Your task to perform on an android device: turn on data saver in the chrome app Image 0: 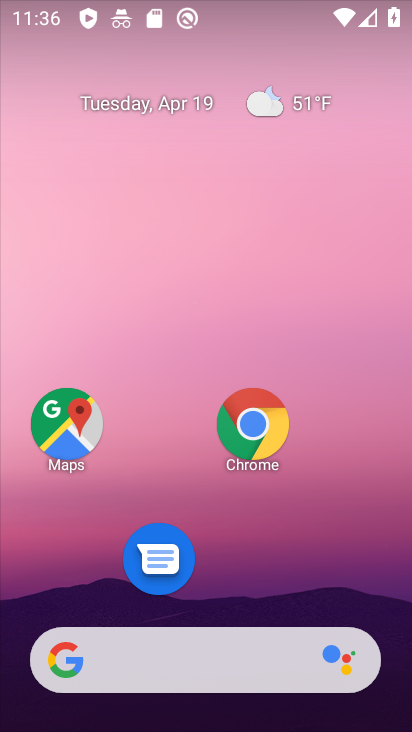
Step 0: drag from (307, 682) to (238, 8)
Your task to perform on an android device: turn on data saver in the chrome app Image 1: 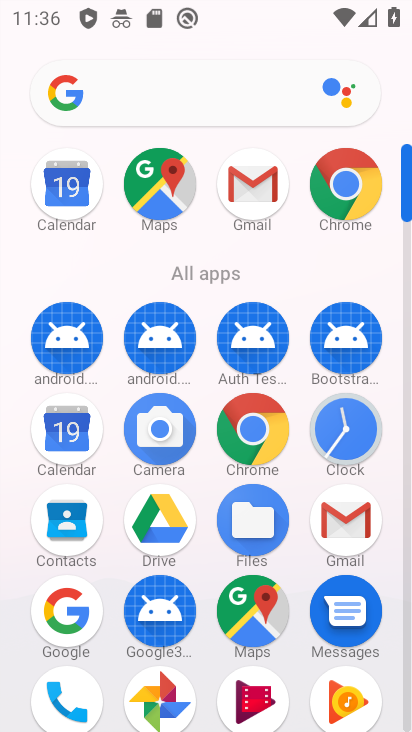
Step 1: click (258, 452)
Your task to perform on an android device: turn on data saver in the chrome app Image 2: 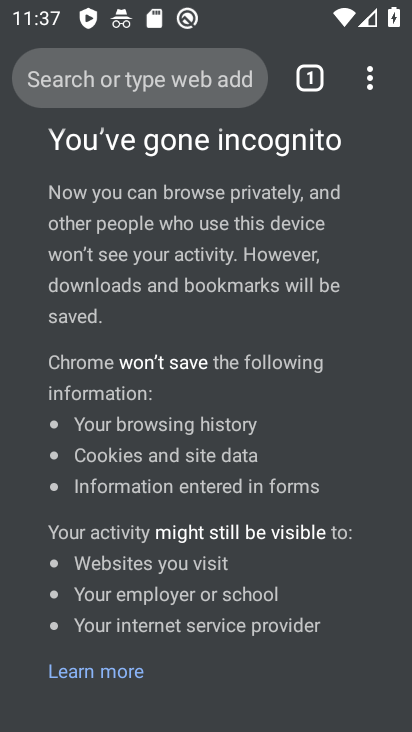
Step 2: click (368, 62)
Your task to perform on an android device: turn on data saver in the chrome app Image 3: 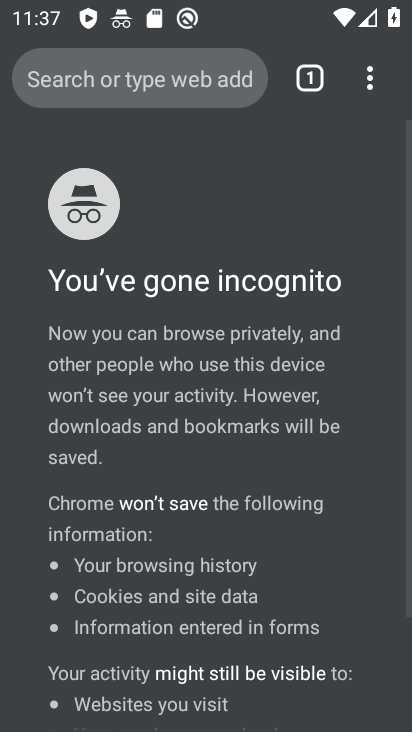
Step 3: drag from (370, 77) to (70, 582)
Your task to perform on an android device: turn on data saver in the chrome app Image 4: 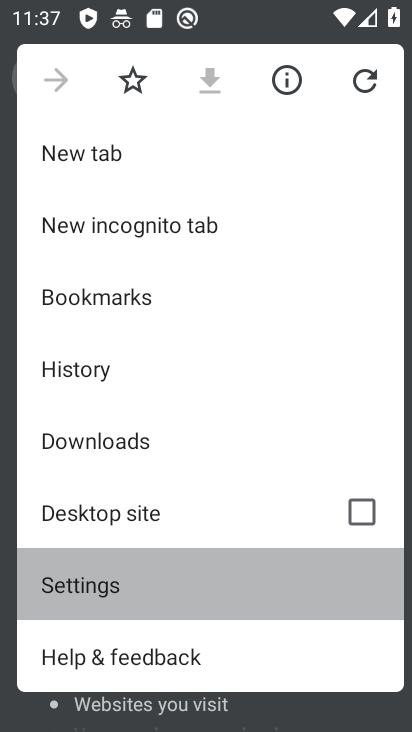
Step 4: click (70, 582)
Your task to perform on an android device: turn on data saver in the chrome app Image 5: 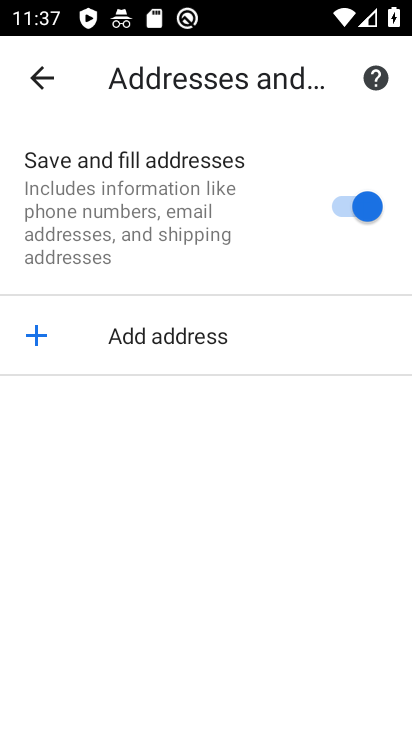
Step 5: drag from (72, 593) to (38, 379)
Your task to perform on an android device: turn on data saver in the chrome app Image 6: 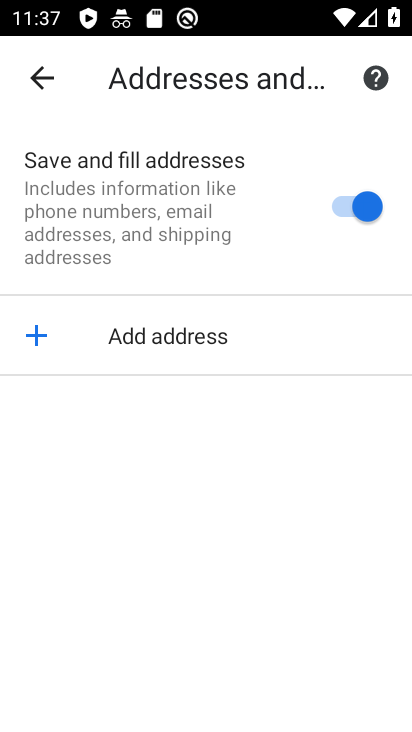
Step 6: click (31, 76)
Your task to perform on an android device: turn on data saver in the chrome app Image 7: 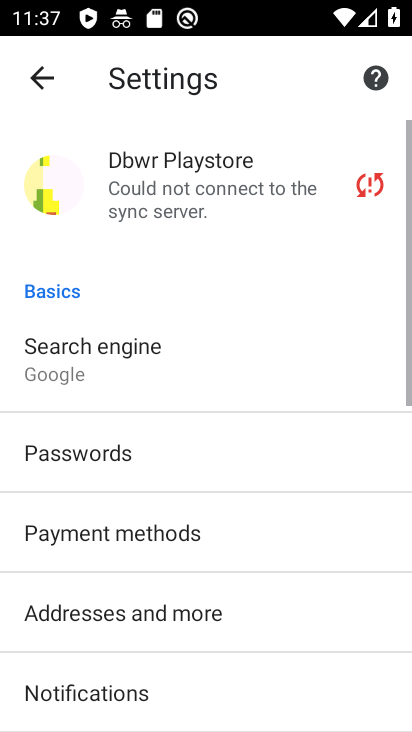
Step 7: drag from (165, 602) to (161, 218)
Your task to perform on an android device: turn on data saver in the chrome app Image 8: 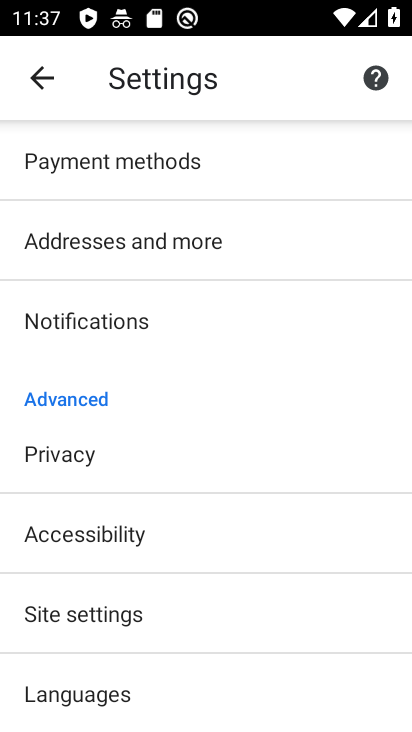
Step 8: drag from (92, 597) to (69, 355)
Your task to perform on an android device: turn on data saver in the chrome app Image 9: 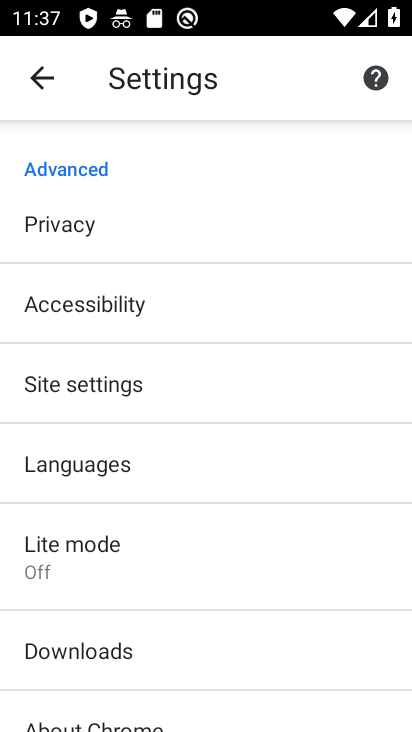
Step 9: click (45, 536)
Your task to perform on an android device: turn on data saver in the chrome app Image 10: 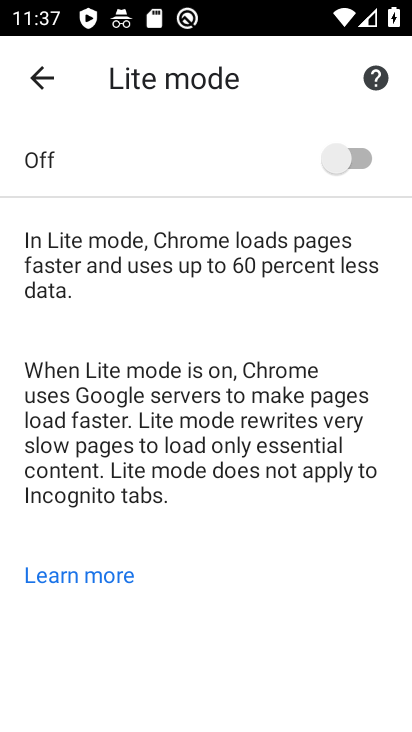
Step 10: click (328, 158)
Your task to perform on an android device: turn on data saver in the chrome app Image 11: 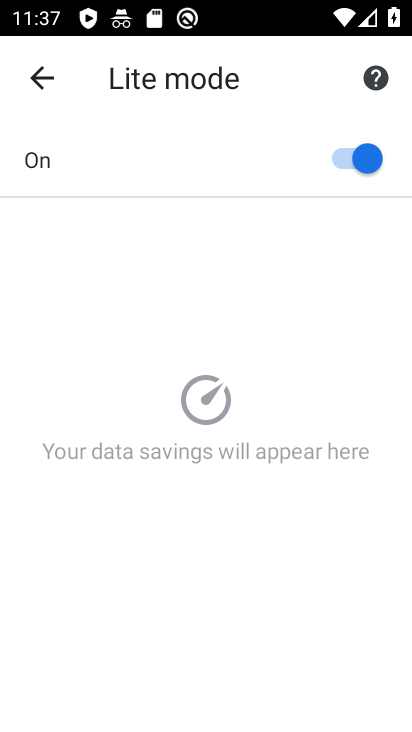
Step 11: task complete